Your task to perform on an android device: Go to privacy settings Image 0: 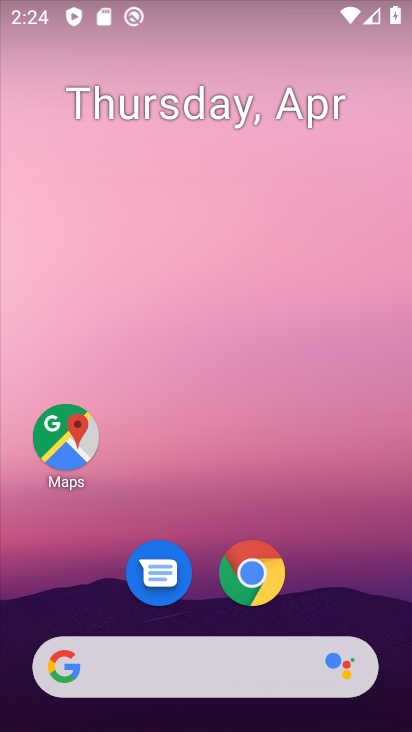
Step 0: drag from (352, 596) to (251, 51)
Your task to perform on an android device: Go to privacy settings Image 1: 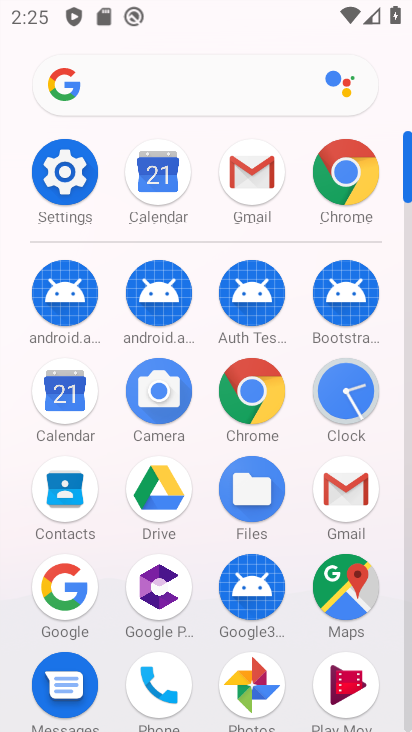
Step 1: click (87, 170)
Your task to perform on an android device: Go to privacy settings Image 2: 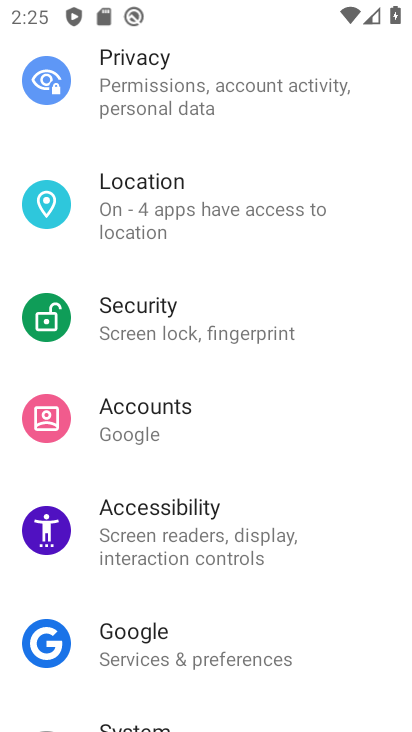
Step 2: click (217, 86)
Your task to perform on an android device: Go to privacy settings Image 3: 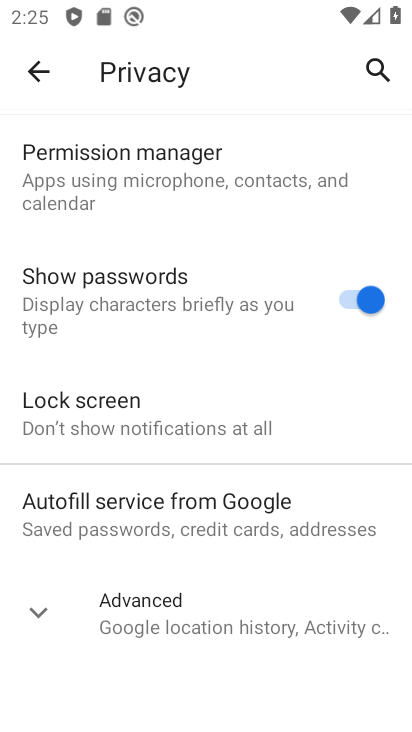
Step 3: task complete